Your task to perform on an android device: turn off javascript in the chrome app Image 0: 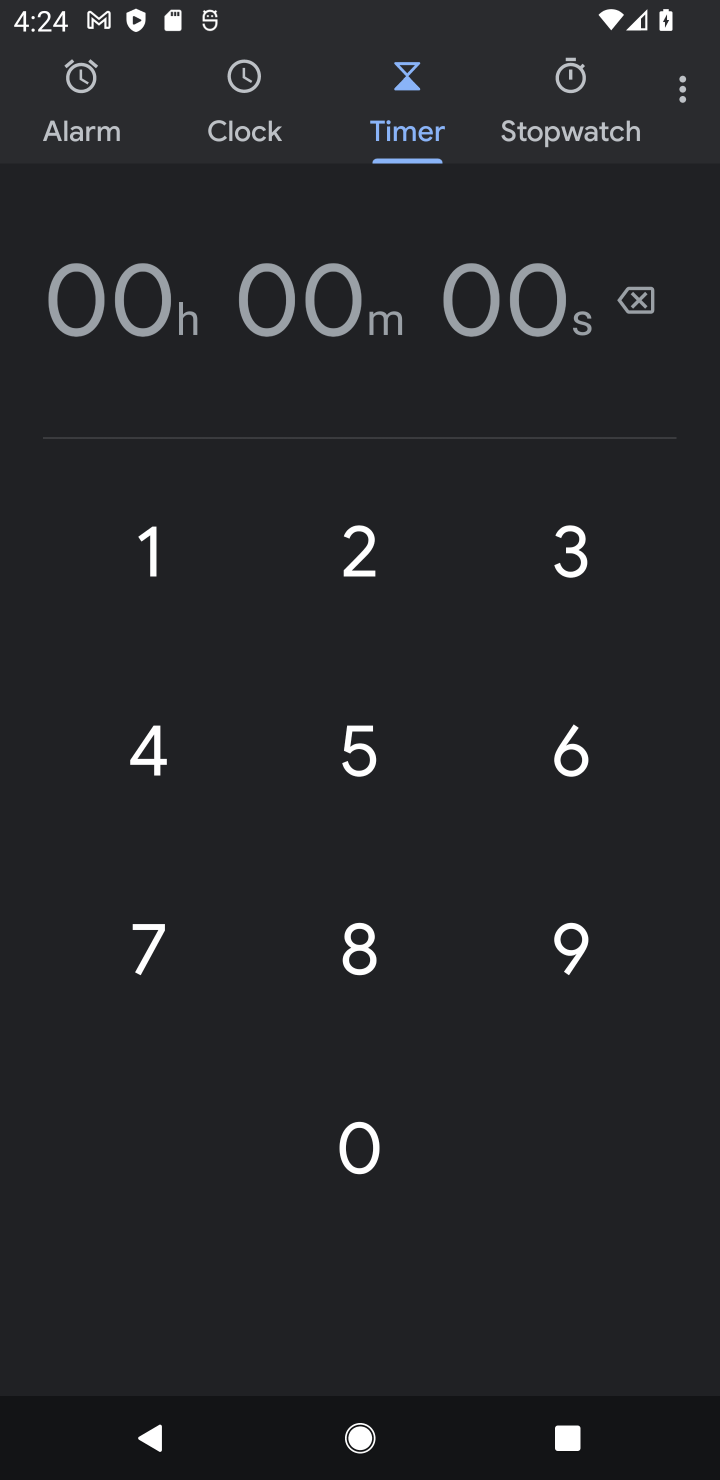
Step 0: press home button
Your task to perform on an android device: turn off javascript in the chrome app Image 1: 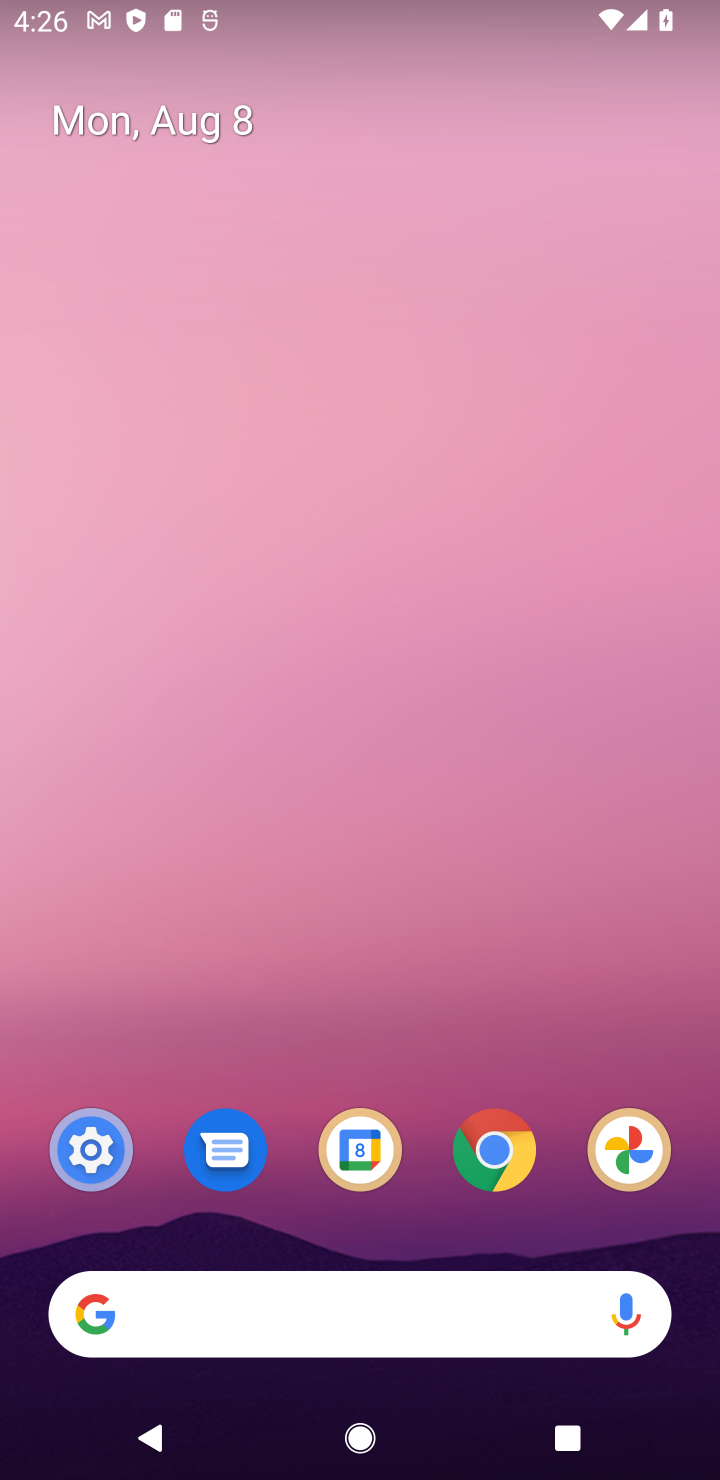
Step 1: click (485, 1138)
Your task to perform on an android device: turn off javascript in the chrome app Image 2: 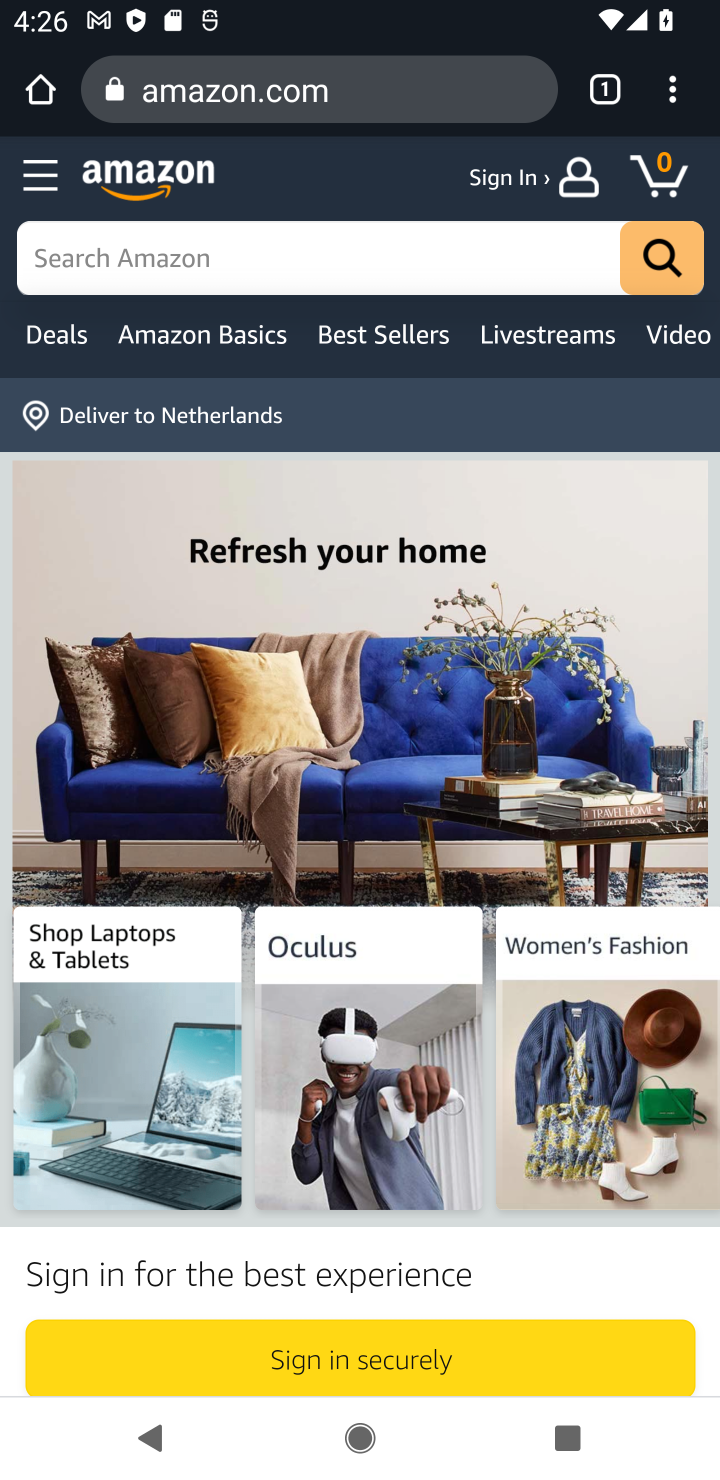
Step 2: task complete